Your task to perform on an android device: change keyboard looks Image 0: 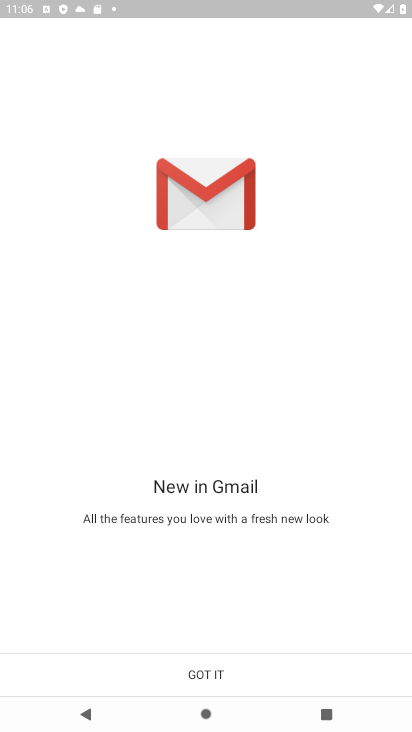
Step 0: click (261, 670)
Your task to perform on an android device: change keyboard looks Image 1: 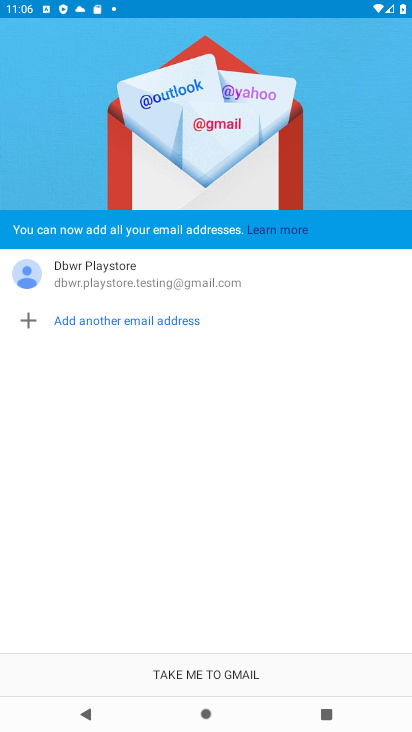
Step 1: task complete